Your task to perform on an android device: Turn on the flashlight Image 0: 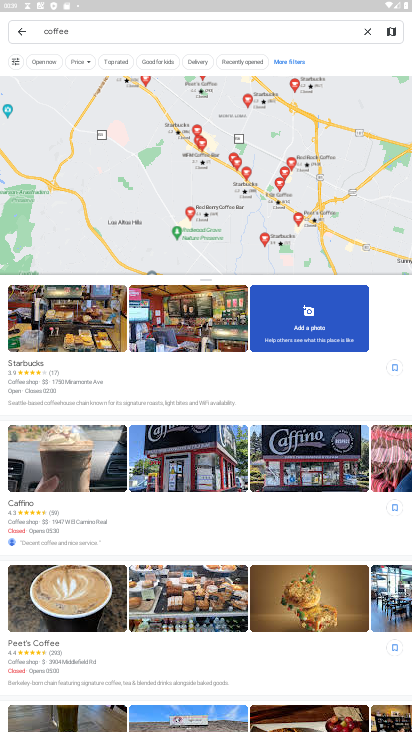
Step 0: press home button
Your task to perform on an android device: Turn on the flashlight Image 1: 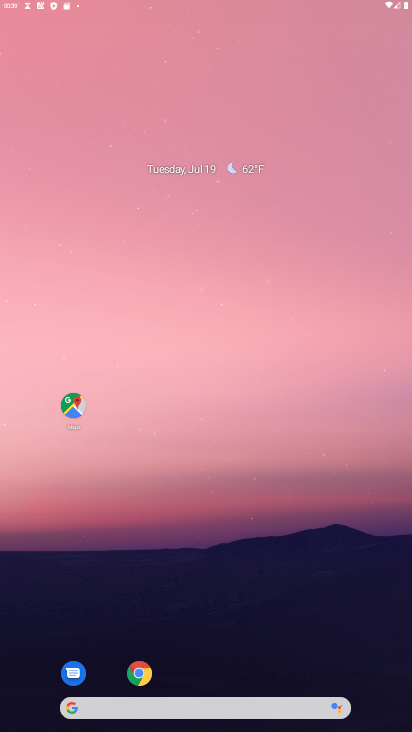
Step 1: drag from (213, 632) to (213, 124)
Your task to perform on an android device: Turn on the flashlight Image 2: 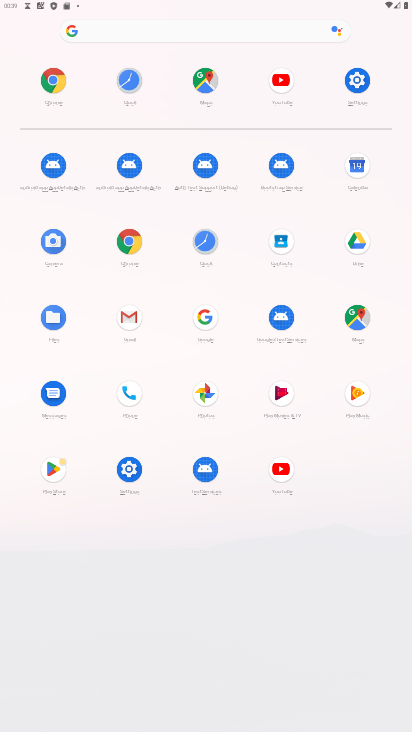
Step 2: click (360, 84)
Your task to perform on an android device: Turn on the flashlight Image 3: 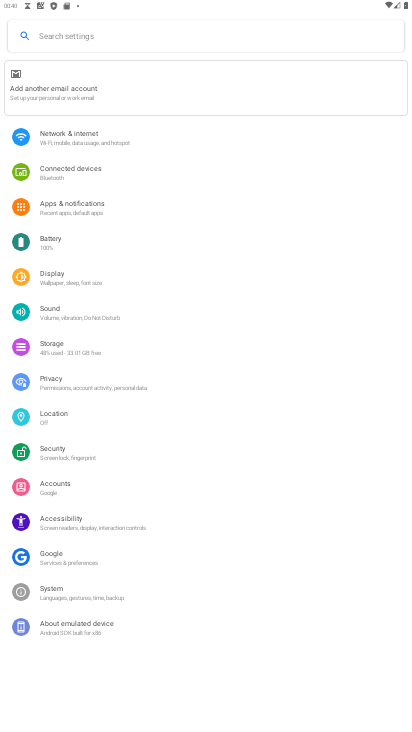
Step 3: task complete